Your task to perform on an android device: search for starred emails in the gmail app Image 0: 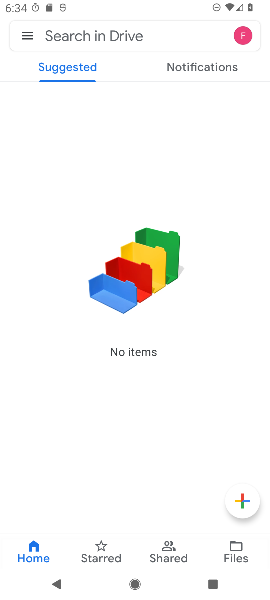
Step 0: press home button
Your task to perform on an android device: search for starred emails in the gmail app Image 1: 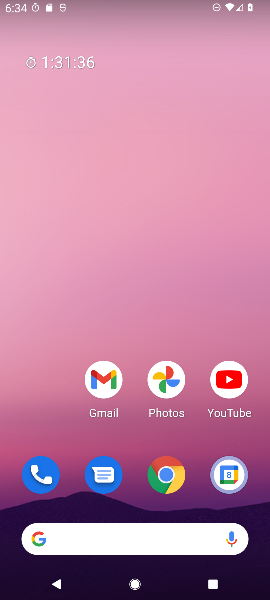
Step 1: drag from (60, 430) to (41, 137)
Your task to perform on an android device: search for starred emails in the gmail app Image 2: 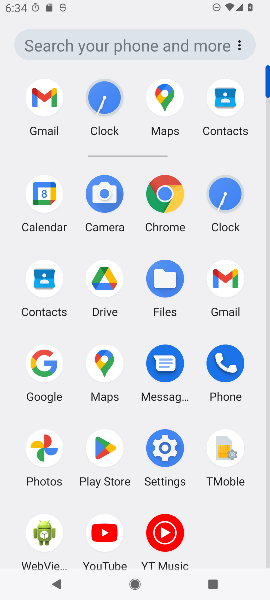
Step 2: click (222, 277)
Your task to perform on an android device: search for starred emails in the gmail app Image 3: 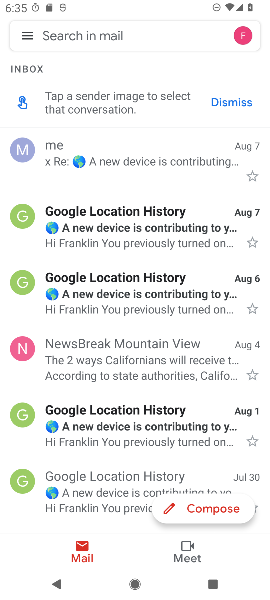
Step 3: click (27, 33)
Your task to perform on an android device: search for starred emails in the gmail app Image 4: 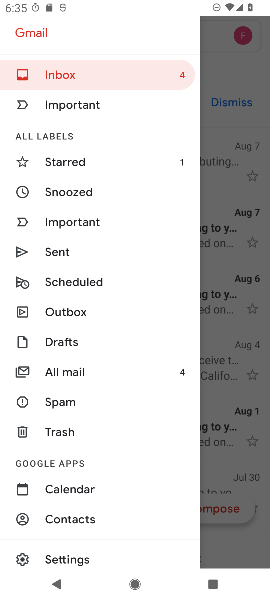
Step 4: click (73, 163)
Your task to perform on an android device: search for starred emails in the gmail app Image 5: 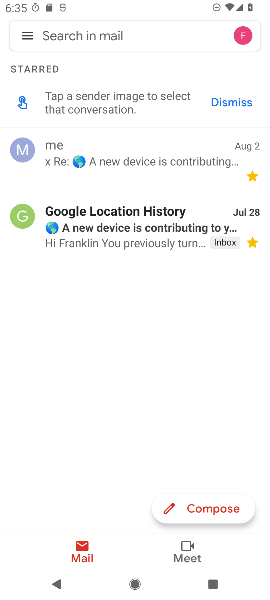
Step 5: task complete